Your task to perform on an android device: turn off airplane mode Image 0: 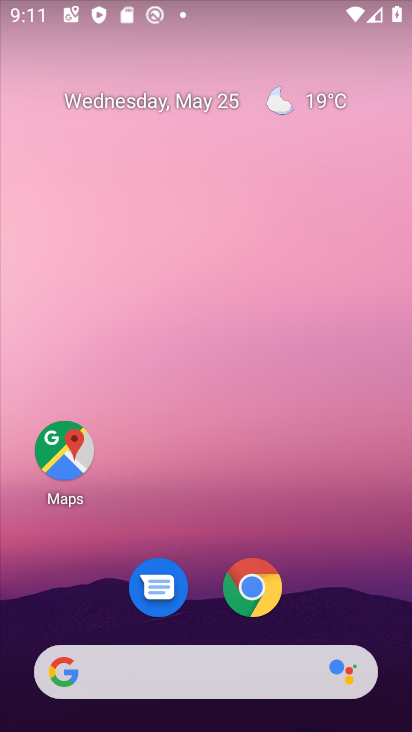
Step 0: drag from (393, 606) to (307, 92)
Your task to perform on an android device: turn off airplane mode Image 1: 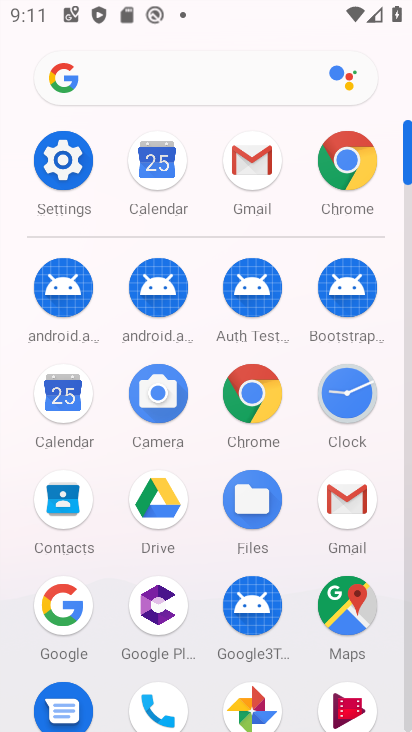
Step 1: click (405, 697)
Your task to perform on an android device: turn off airplane mode Image 2: 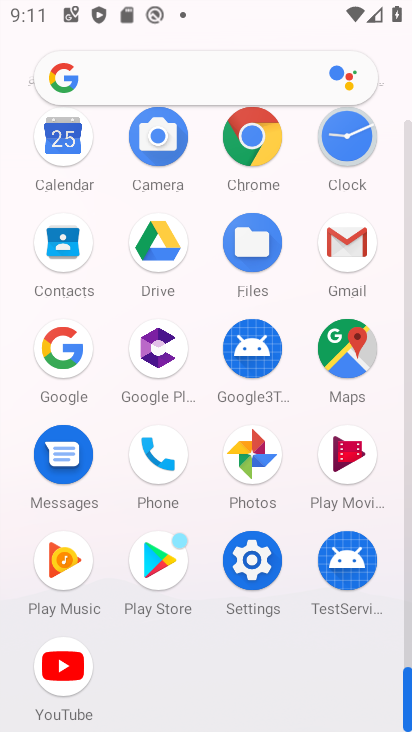
Step 2: click (250, 560)
Your task to perform on an android device: turn off airplane mode Image 3: 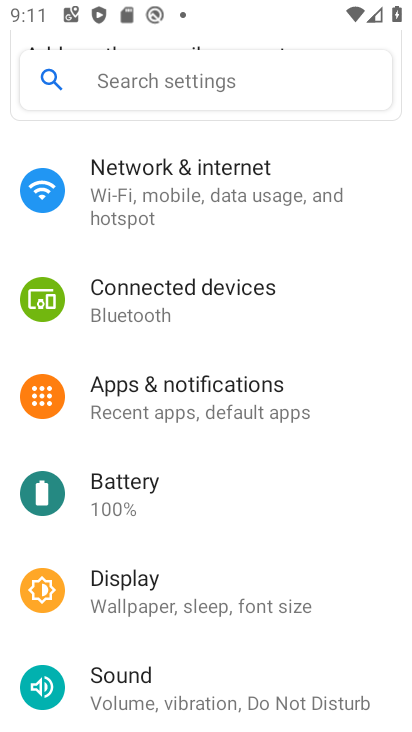
Step 3: click (159, 184)
Your task to perform on an android device: turn off airplane mode Image 4: 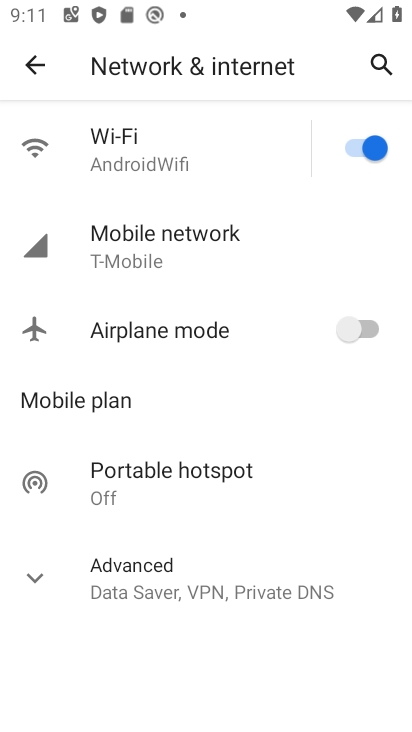
Step 4: click (156, 236)
Your task to perform on an android device: turn off airplane mode Image 5: 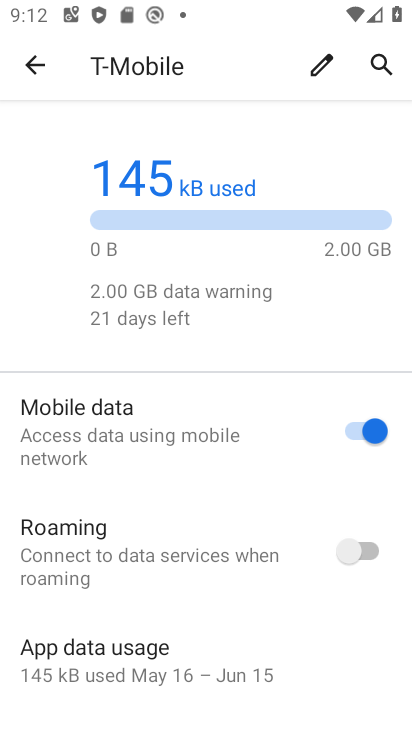
Step 5: task complete